Your task to perform on an android device: Show the shopping cart on walmart. Add "usb-c" to the cart on walmart Image 0: 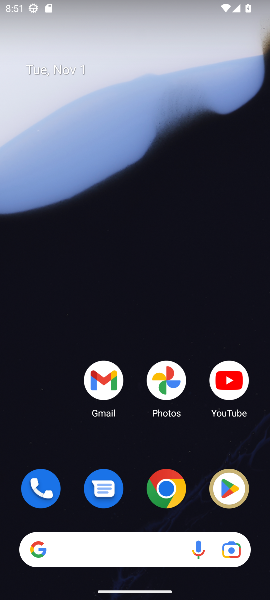
Step 0: click (166, 499)
Your task to perform on an android device: Show the shopping cart on walmart. Add "usb-c" to the cart on walmart Image 1: 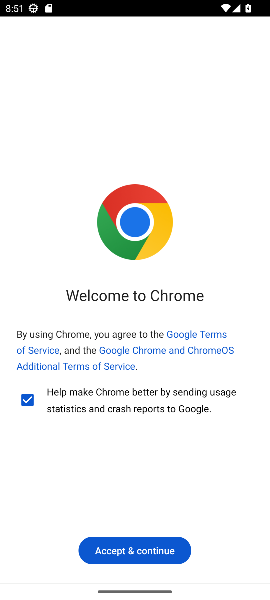
Step 1: click (154, 556)
Your task to perform on an android device: Show the shopping cart on walmart. Add "usb-c" to the cart on walmart Image 2: 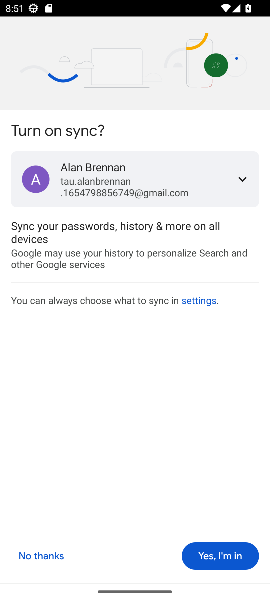
Step 2: click (232, 555)
Your task to perform on an android device: Show the shopping cart on walmart. Add "usb-c" to the cart on walmart Image 3: 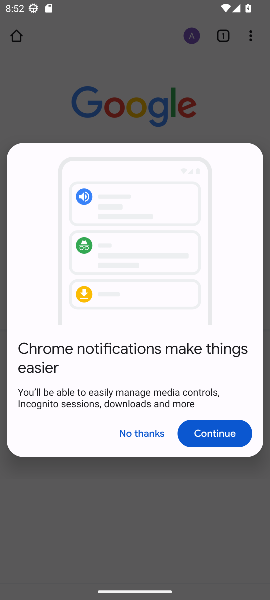
Step 3: click (153, 434)
Your task to perform on an android device: Show the shopping cart on walmart. Add "usb-c" to the cart on walmart Image 4: 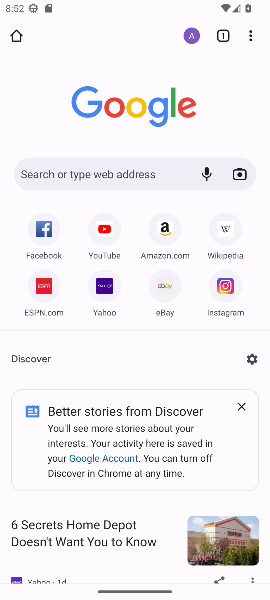
Step 4: click (164, 182)
Your task to perform on an android device: Show the shopping cart on walmart. Add "usb-c" to the cart on walmart Image 5: 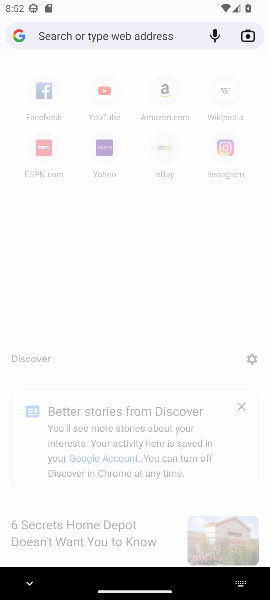
Step 5: type "walmart"
Your task to perform on an android device: Show the shopping cart on walmart. Add "usb-c" to the cart on walmart Image 6: 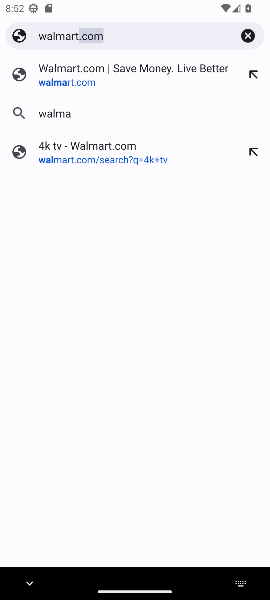
Step 6: type ""
Your task to perform on an android device: Show the shopping cart on walmart. Add "usb-c" to the cart on walmart Image 7: 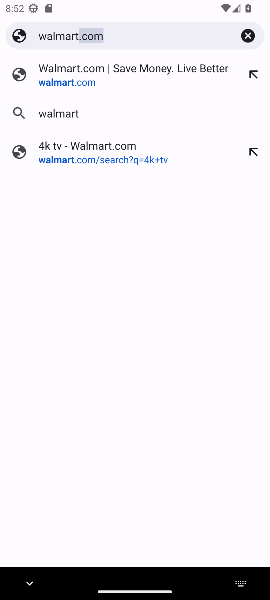
Step 7: press enter
Your task to perform on an android device: Show the shopping cart on walmart. Add "usb-c" to the cart on walmart Image 8: 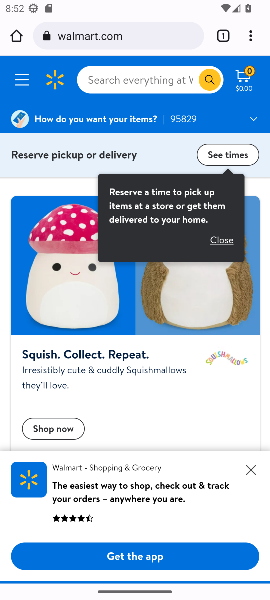
Step 8: click (254, 472)
Your task to perform on an android device: Show the shopping cart on walmart. Add "usb-c" to the cart on walmart Image 9: 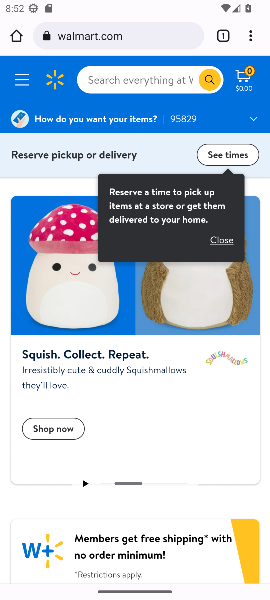
Step 9: click (250, 71)
Your task to perform on an android device: Show the shopping cart on walmart. Add "usb-c" to the cart on walmart Image 10: 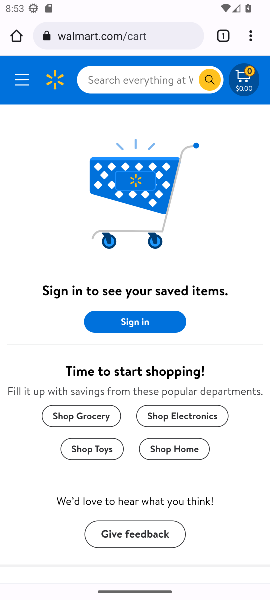
Step 10: click (148, 85)
Your task to perform on an android device: Show the shopping cart on walmart. Add "usb-c" to the cart on walmart Image 11: 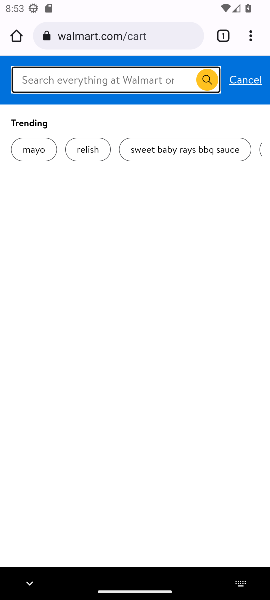
Step 11: type "usb-c"
Your task to perform on an android device: Show the shopping cart on walmart. Add "usb-c" to the cart on walmart Image 12: 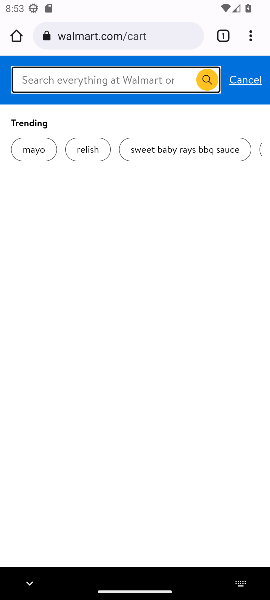
Step 12: type ""
Your task to perform on an android device: Show the shopping cart on walmart. Add "usb-c" to the cart on walmart Image 13: 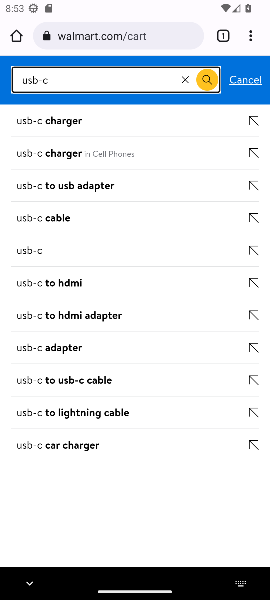
Step 13: press enter
Your task to perform on an android device: Show the shopping cart on walmart. Add "usb-c" to the cart on walmart Image 14: 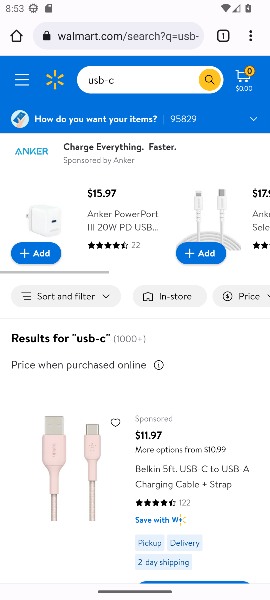
Step 14: drag from (203, 429) to (226, 335)
Your task to perform on an android device: Show the shopping cart on walmart. Add "usb-c" to the cart on walmart Image 15: 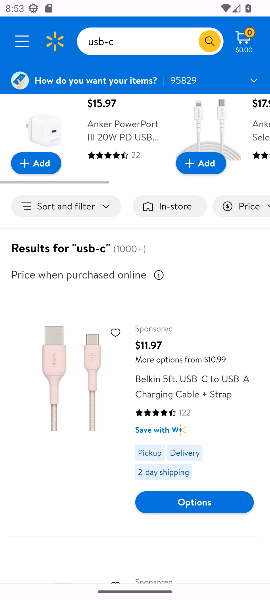
Step 15: click (221, 502)
Your task to perform on an android device: Show the shopping cart on walmart. Add "usb-c" to the cart on walmart Image 16: 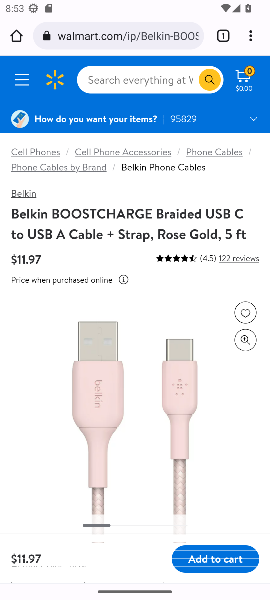
Step 16: drag from (199, 476) to (208, 231)
Your task to perform on an android device: Show the shopping cart on walmart. Add "usb-c" to the cart on walmart Image 17: 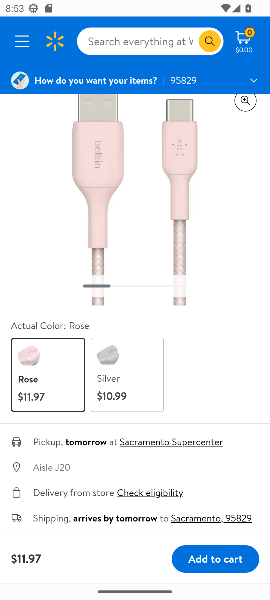
Step 17: drag from (184, 459) to (198, 260)
Your task to perform on an android device: Show the shopping cart on walmart. Add "usb-c" to the cart on walmart Image 18: 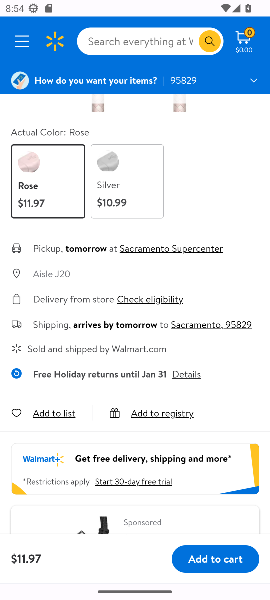
Step 18: click (209, 561)
Your task to perform on an android device: Show the shopping cart on walmart. Add "usb-c" to the cart on walmart Image 19: 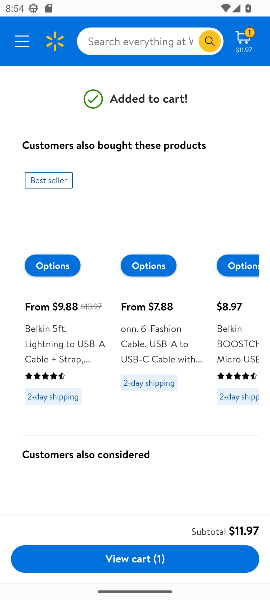
Step 19: click (189, 552)
Your task to perform on an android device: Show the shopping cart on walmart. Add "usb-c" to the cart on walmart Image 20: 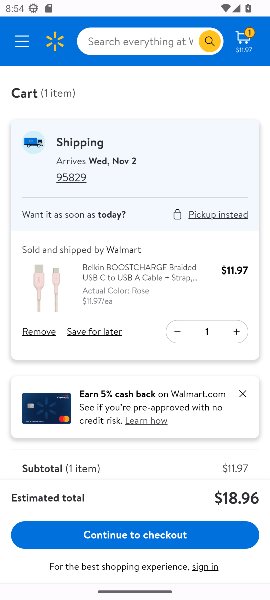
Step 20: task complete